Your task to perform on an android device: Open Google Image 0: 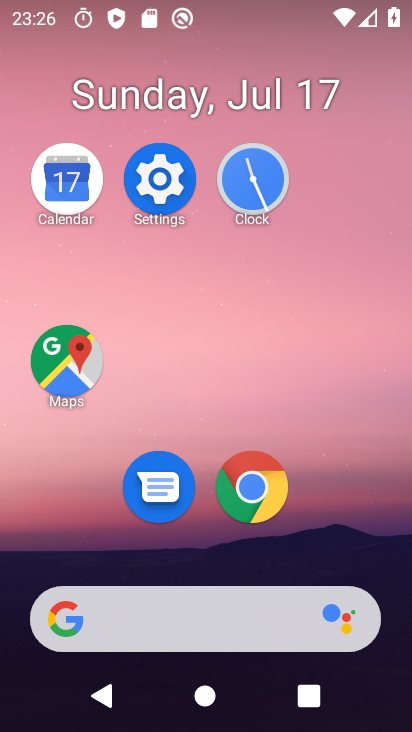
Step 0: drag from (351, 531) to (299, 133)
Your task to perform on an android device: Open Google Image 1: 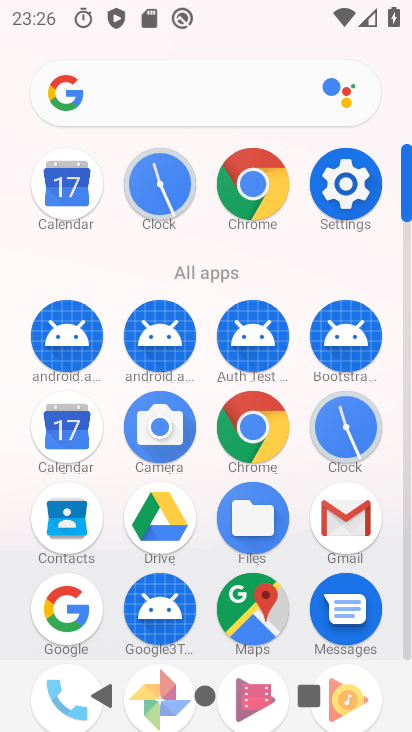
Step 1: drag from (73, 598) to (149, 324)
Your task to perform on an android device: Open Google Image 2: 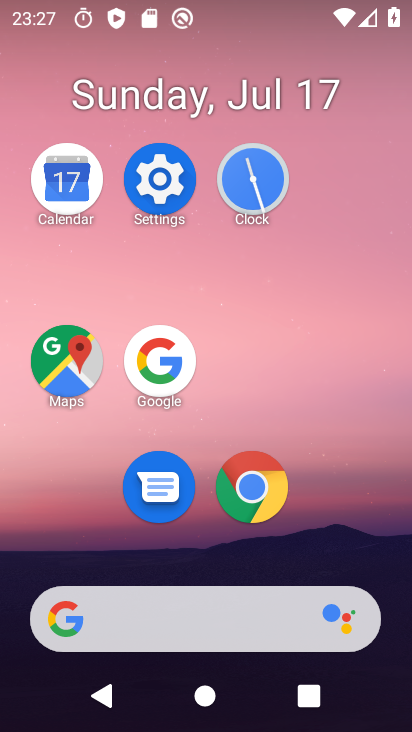
Step 2: click (171, 361)
Your task to perform on an android device: Open Google Image 3: 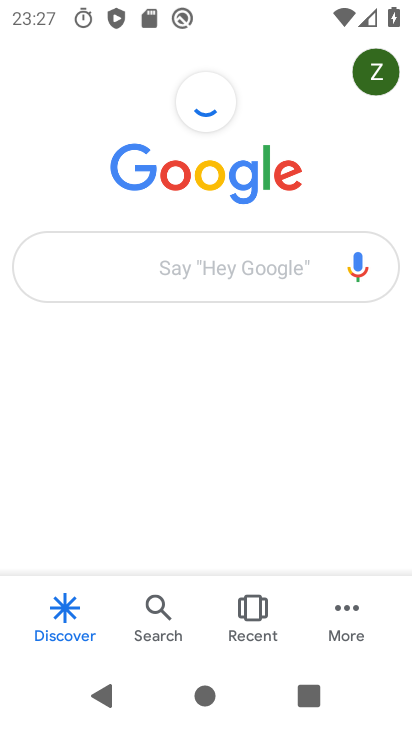
Step 3: task complete